Your task to perform on an android device: Go to Maps Image 0: 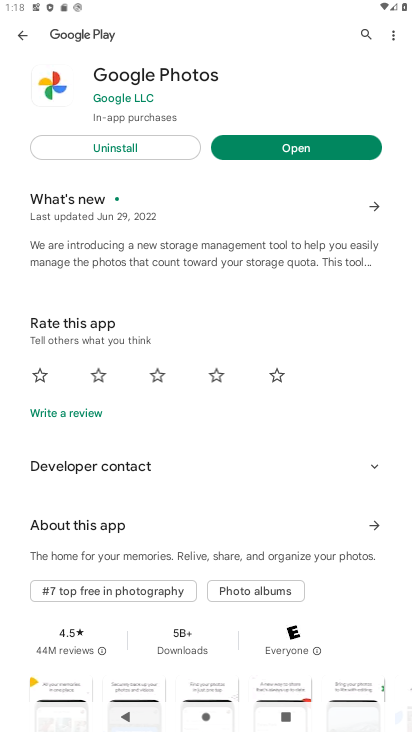
Step 0: press home button
Your task to perform on an android device: Go to Maps Image 1: 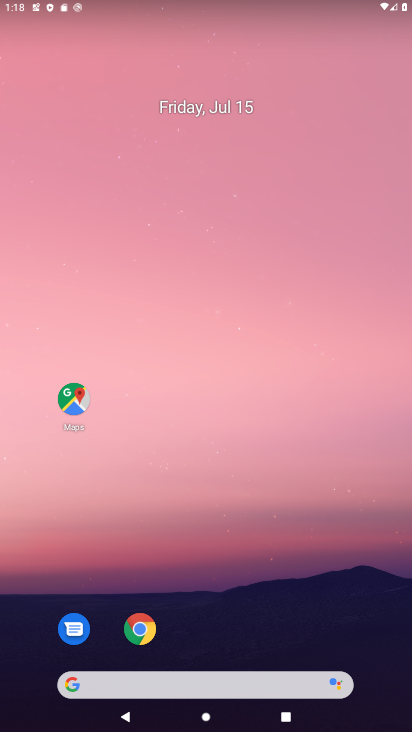
Step 1: drag from (258, 621) to (193, 80)
Your task to perform on an android device: Go to Maps Image 2: 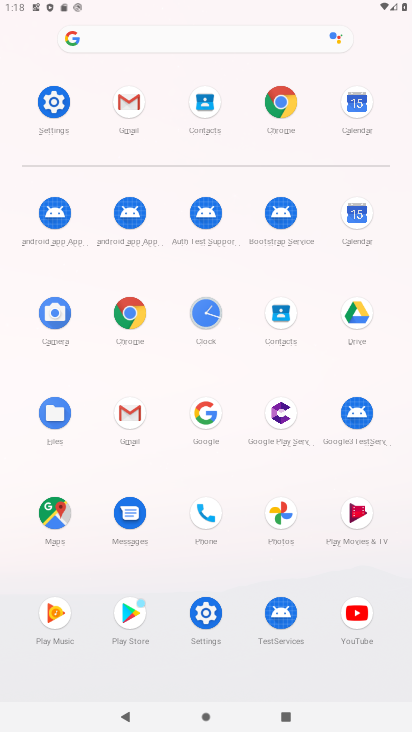
Step 2: click (57, 513)
Your task to perform on an android device: Go to Maps Image 3: 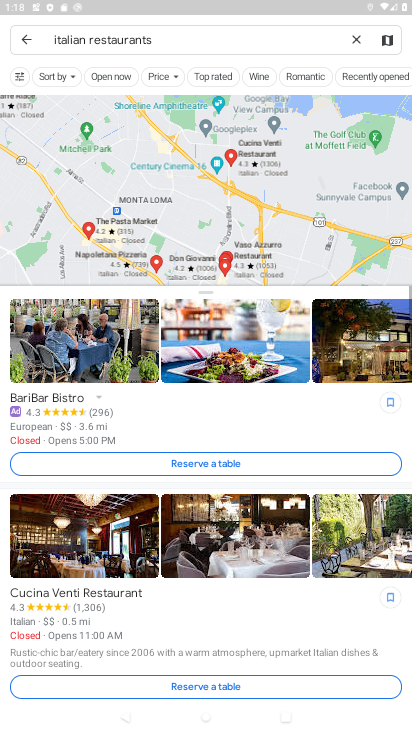
Step 3: task complete